Your task to perform on an android device: Open Wikipedia Image 0: 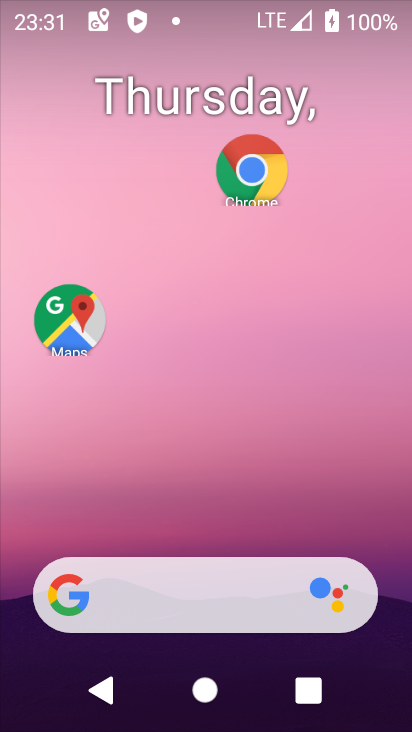
Step 0: click (245, 161)
Your task to perform on an android device: Open Wikipedia Image 1: 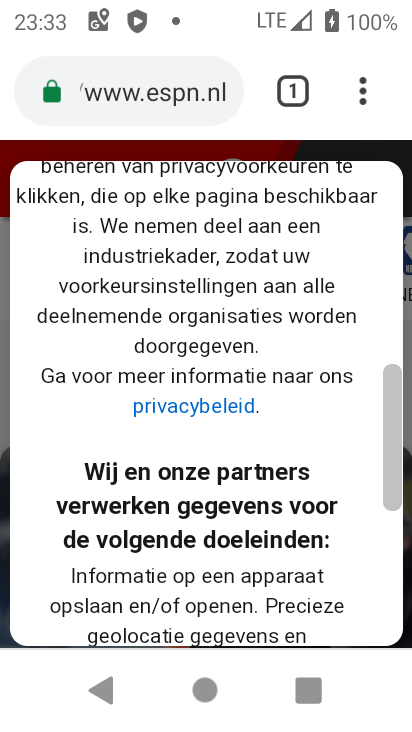
Step 1: task complete